Your task to perform on an android device: Check the news Image 0: 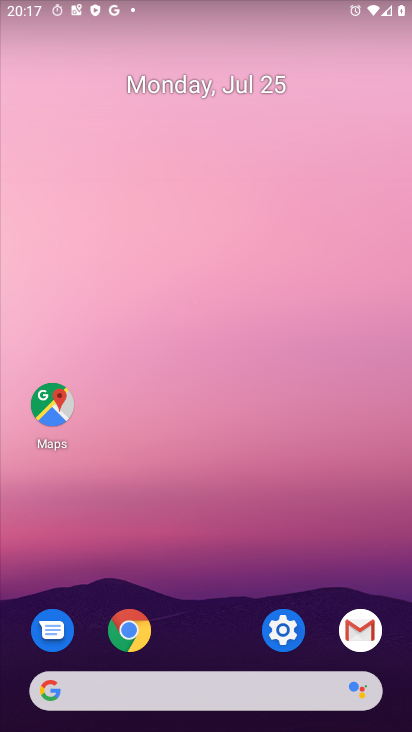
Step 0: click (195, 698)
Your task to perform on an android device: Check the news Image 1: 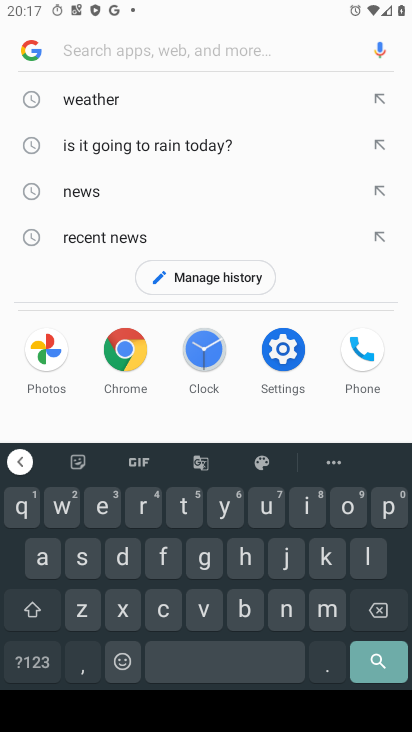
Step 1: click (120, 190)
Your task to perform on an android device: Check the news Image 2: 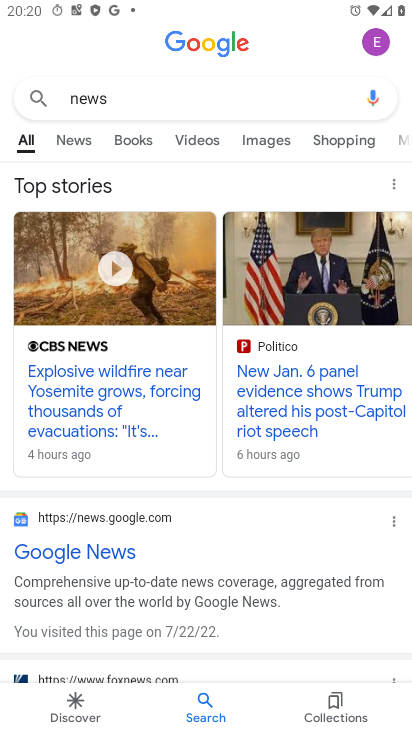
Step 2: task complete